Your task to perform on an android device: check the backup settings in the google photos Image 0: 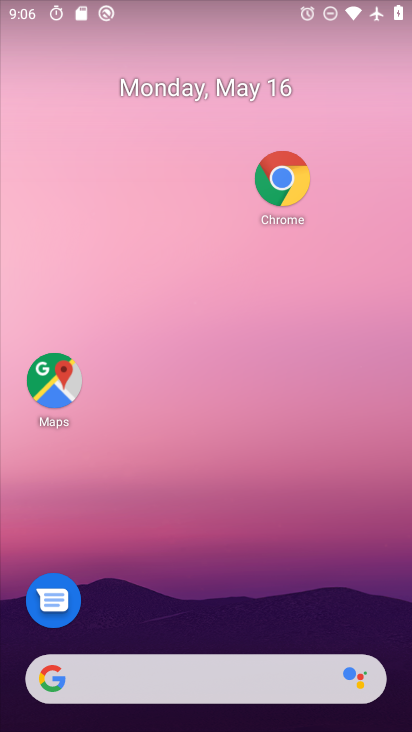
Step 0: drag from (169, 673) to (280, 90)
Your task to perform on an android device: check the backup settings in the google photos Image 1: 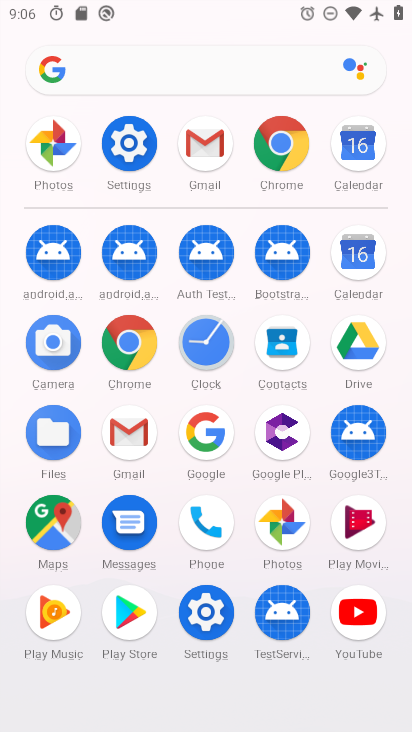
Step 1: click (275, 523)
Your task to perform on an android device: check the backup settings in the google photos Image 2: 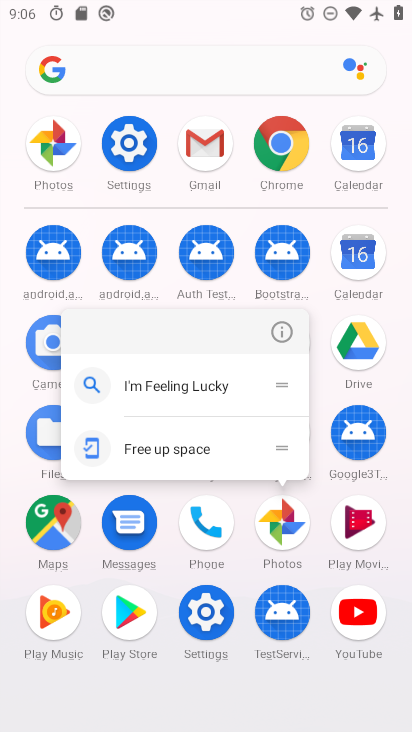
Step 2: click (285, 520)
Your task to perform on an android device: check the backup settings in the google photos Image 3: 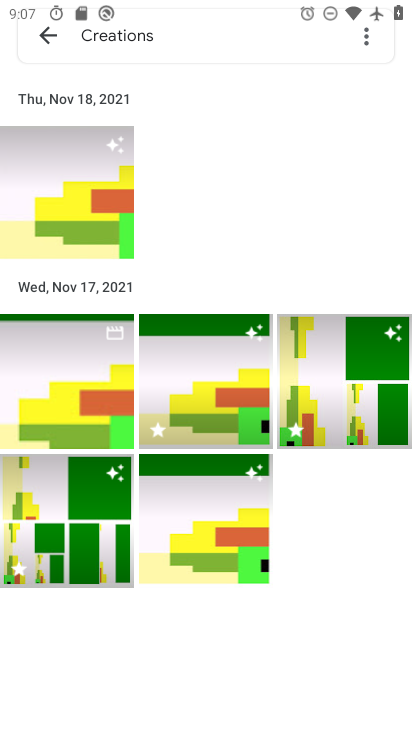
Step 3: click (42, 39)
Your task to perform on an android device: check the backup settings in the google photos Image 4: 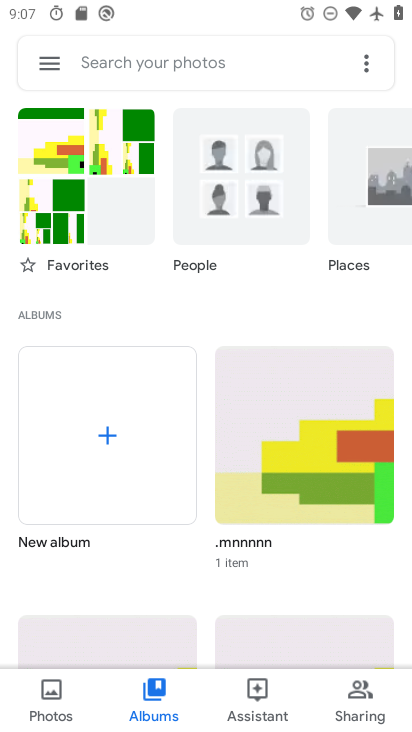
Step 4: click (53, 63)
Your task to perform on an android device: check the backup settings in the google photos Image 5: 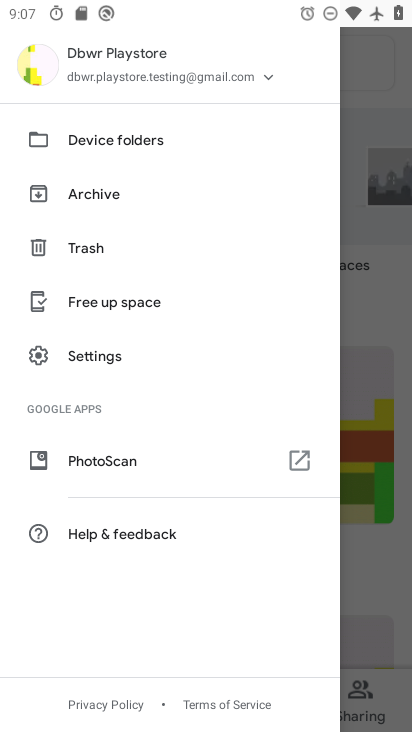
Step 5: click (89, 356)
Your task to perform on an android device: check the backup settings in the google photos Image 6: 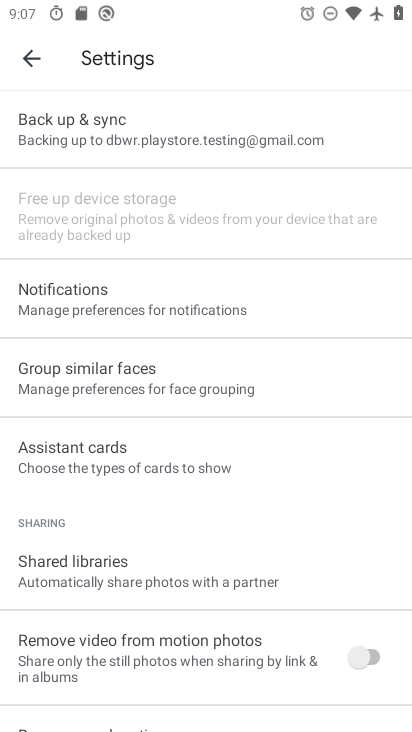
Step 6: click (154, 130)
Your task to perform on an android device: check the backup settings in the google photos Image 7: 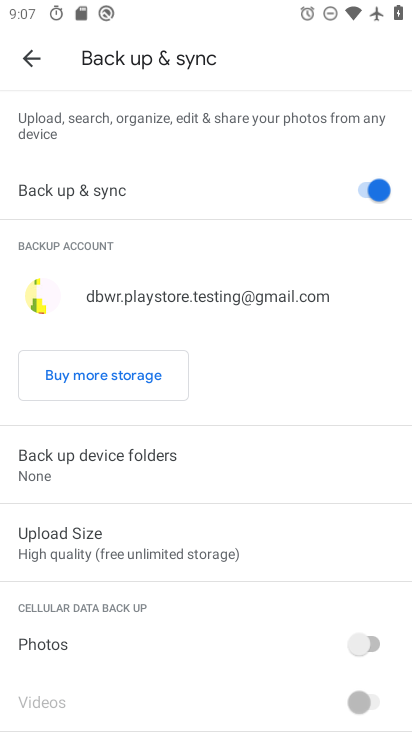
Step 7: task complete